Your task to perform on an android device: change the clock display to digital Image 0: 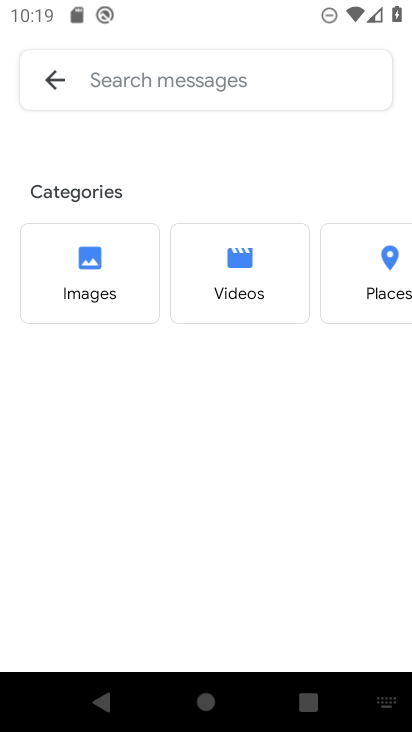
Step 0: press home button
Your task to perform on an android device: change the clock display to digital Image 1: 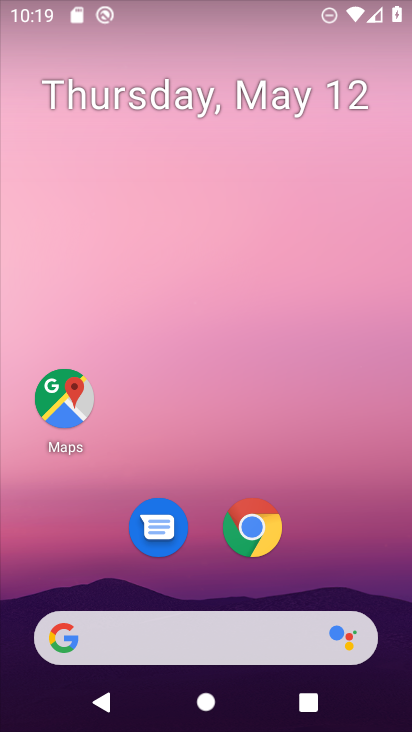
Step 1: drag from (343, 551) to (361, 70)
Your task to perform on an android device: change the clock display to digital Image 2: 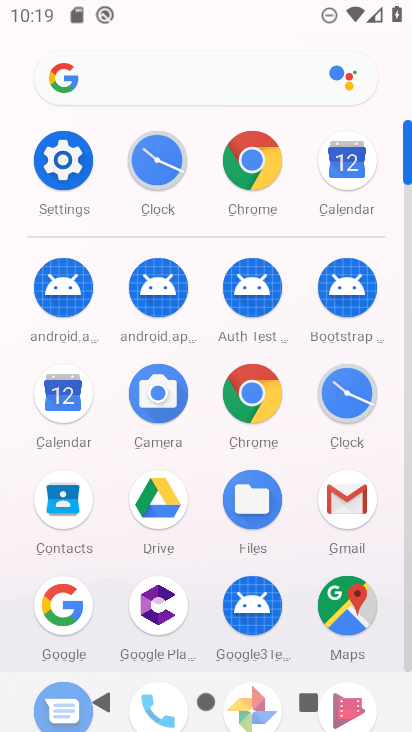
Step 2: click (156, 173)
Your task to perform on an android device: change the clock display to digital Image 3: 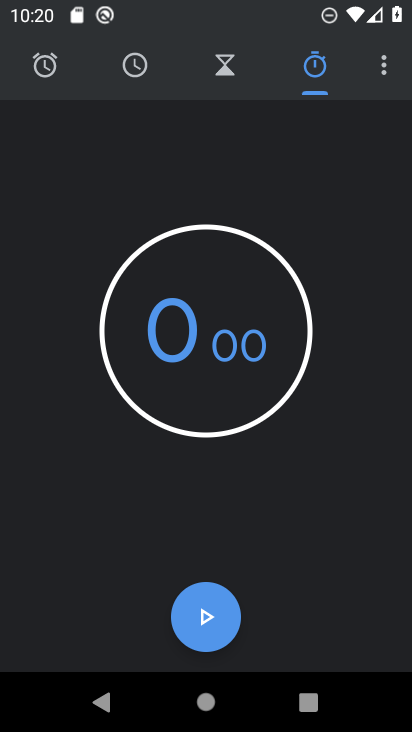
Step 3: click (371, 72)
Your task to perform on an android device: change the clock display to digital Image 4: 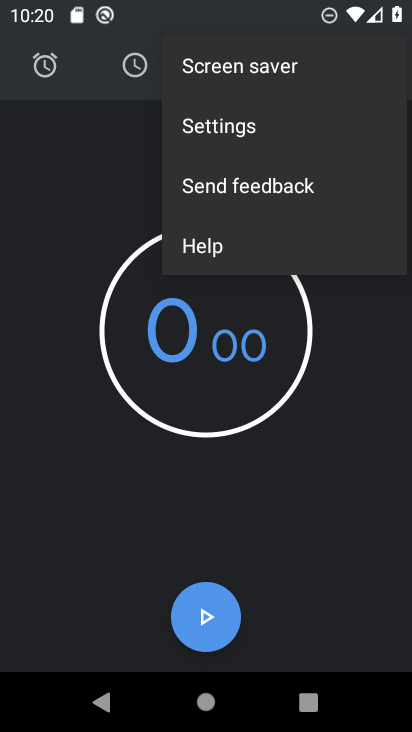
Step 4: click (295, 153)
Your task to perform on an android device: change the clock display to digital Image 5: 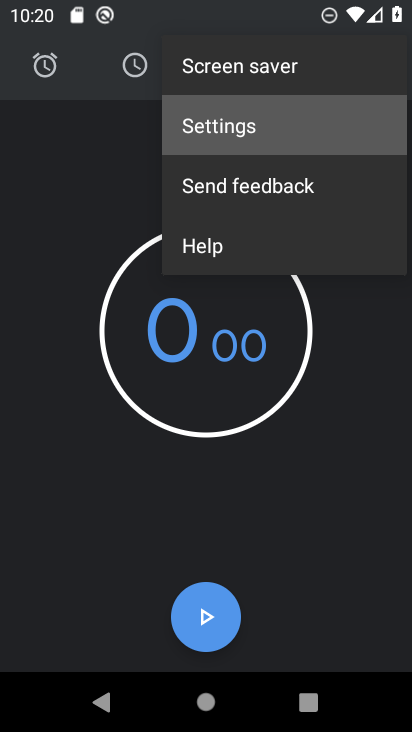
Step 5: click (295, 153)
Your task to perform on an android device: change the clock display to digital Image 6: 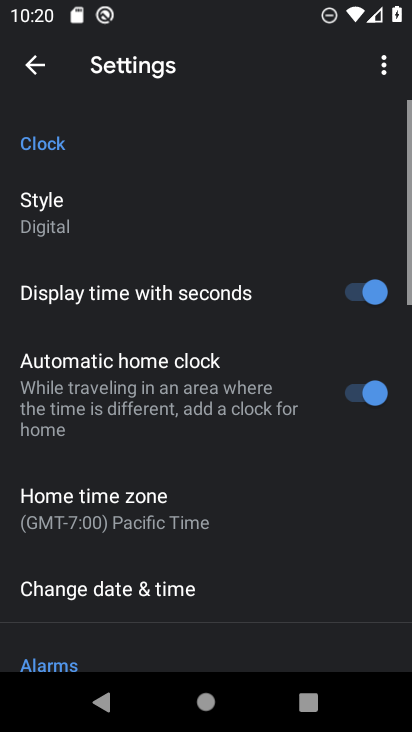
Step 6: click (164, 226)
Your task to perform on an android device: change the clock display to digital Image 7: 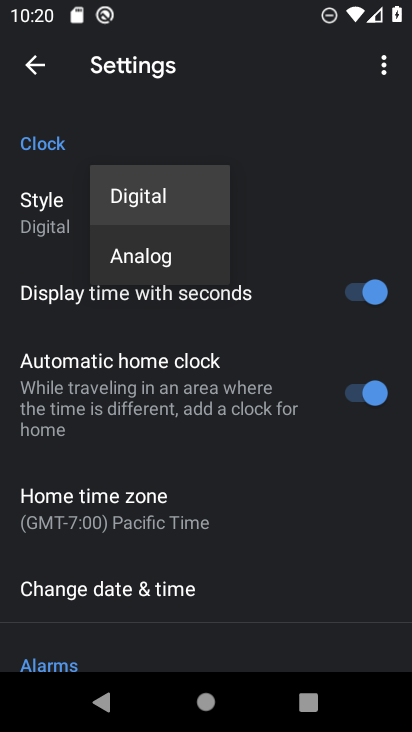
Step 7: task complete